Your task to perform on an android device: What's the weather going to be tomorrow? Image 0: 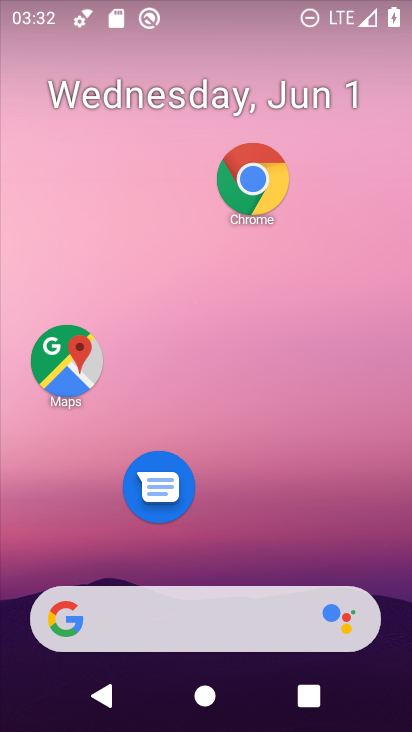
Step 0: drag from (242, 537) to (250, 214)
Your task to perform on an android device: What's the weather going to be tomorrow? Image 1: 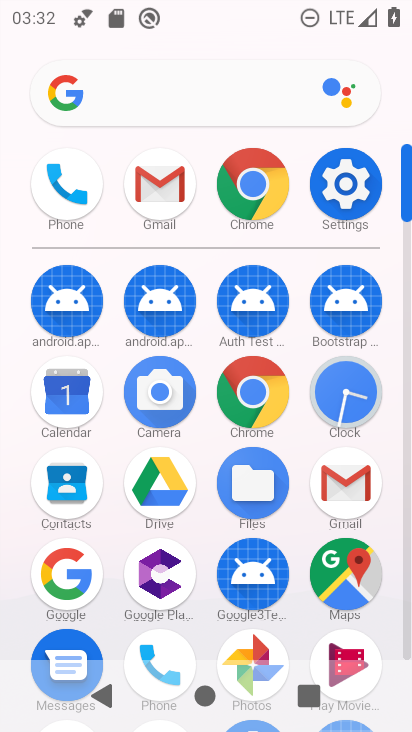
Step 1: click (222, 381)
Your task to perform on an android device: What's the weather going to be tomorrow? Image 2: 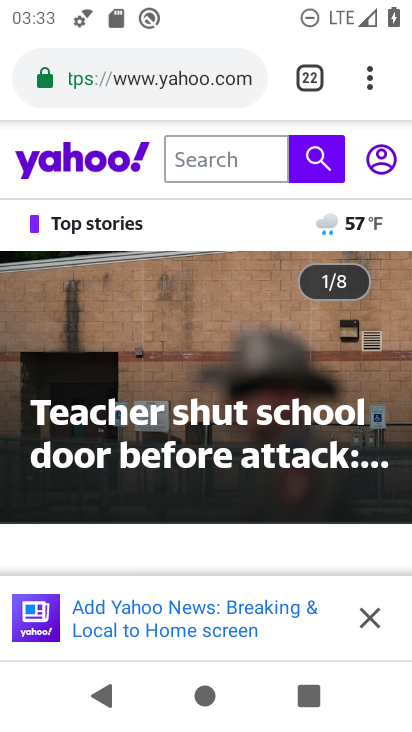
Step 2: click (362, 72)
Your task to perform on an android device: What's the weather going to be tomorrow? Image 3: 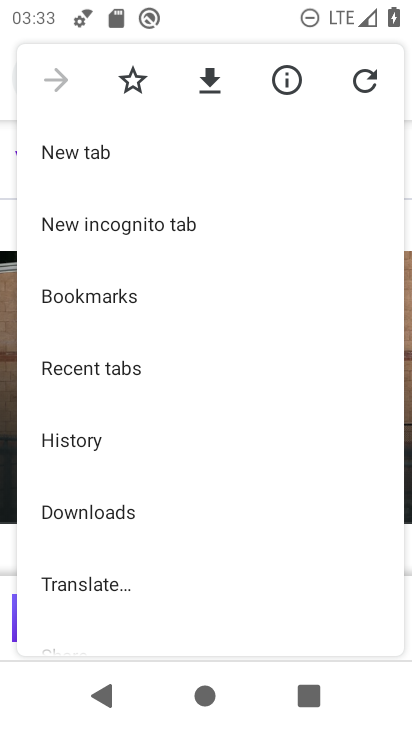
Step 3: click (104, 160)
Your task to perform on an android device: What's the weather going to be tomorrow? Image 4: 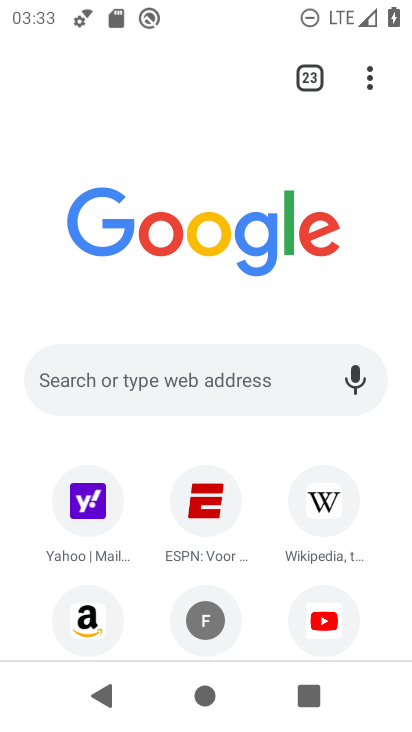
Step 4: click (222, 364)
Your task to perform on an android device: What's the weather going to be tomorrow? Image 5: 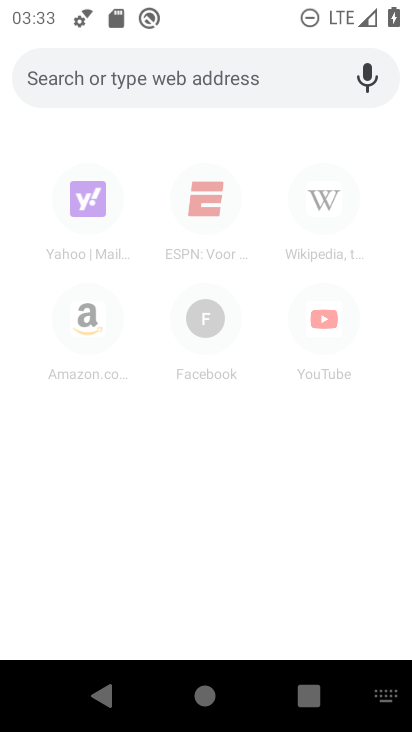
Step 5: type "What's the weather going to be tomorrow?"
Your task to perform on an android device: What's the weather going to be tomorrow? Image 6: 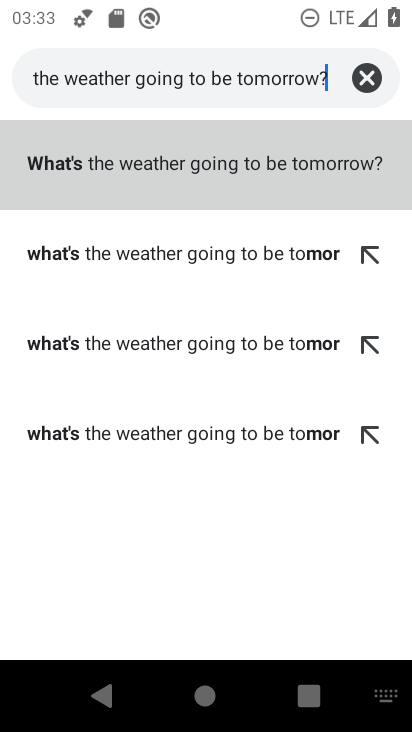
Step 6: click (112, 153)
Your task to perform on an android device: What's the weather going to be tomorrow? Image 7: 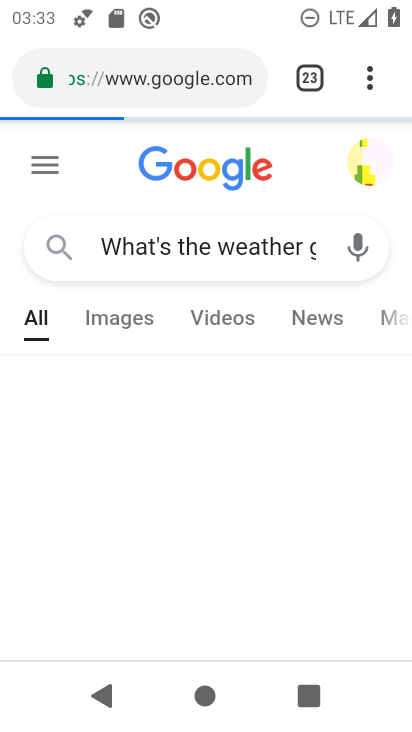
Step 7: task complete